Your task to perform on an android device: Go to Google maps Image 0: 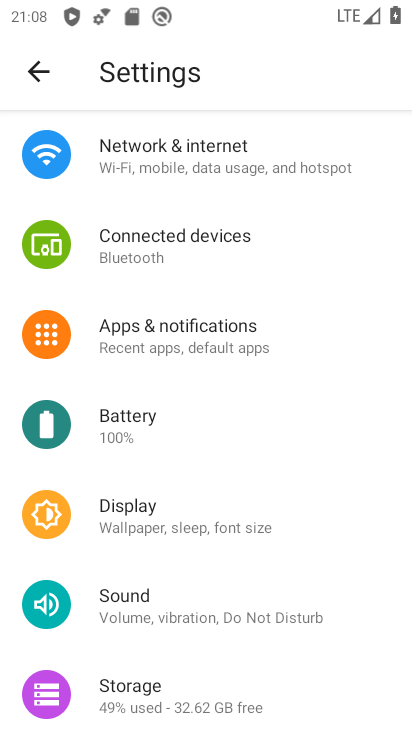
Step 0: press home button
Your task to perform on an android device: Go to Google maps Image 1: 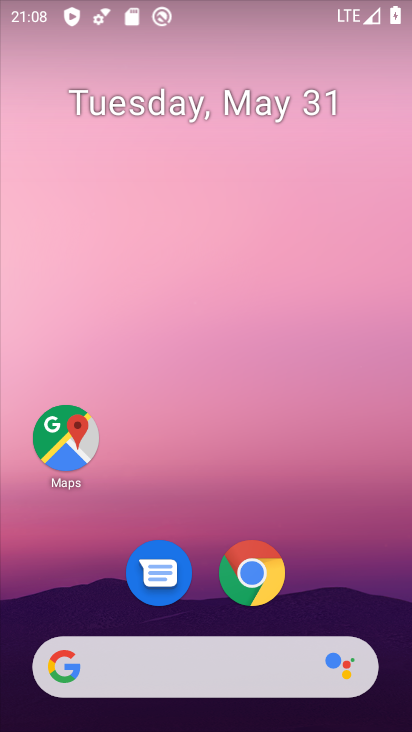
Step 1: drag from (339, 447) to (321, 119)
Your task to perform on an android device: Go to Google maps Image 2: 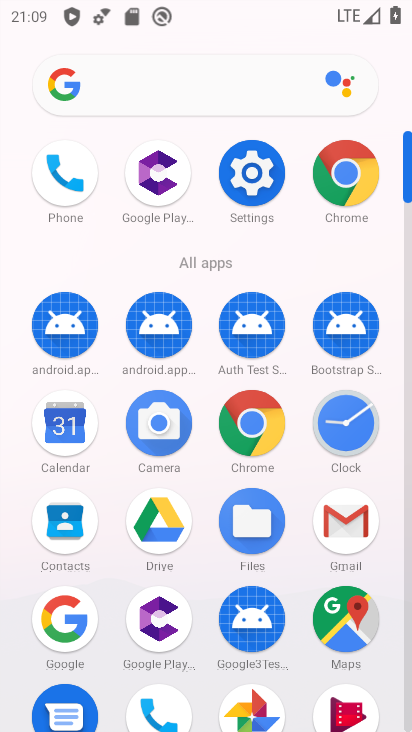
Step 2: click (356, 622)
Your task to perform on an android device: Go to Google maps Image 3: 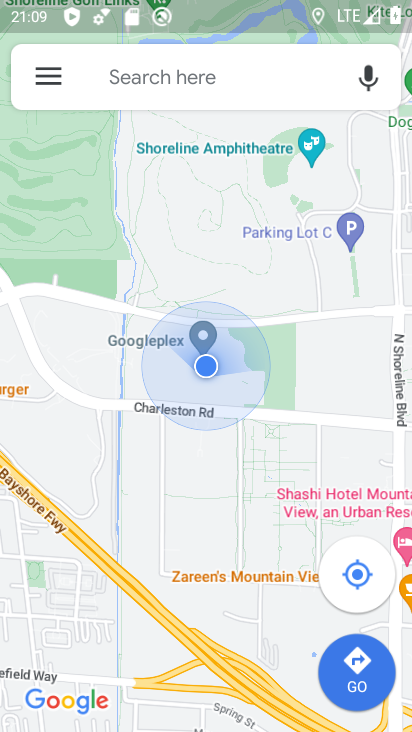
Step 3: task complete